Your task to perform on an android device: turn off location Image 0: 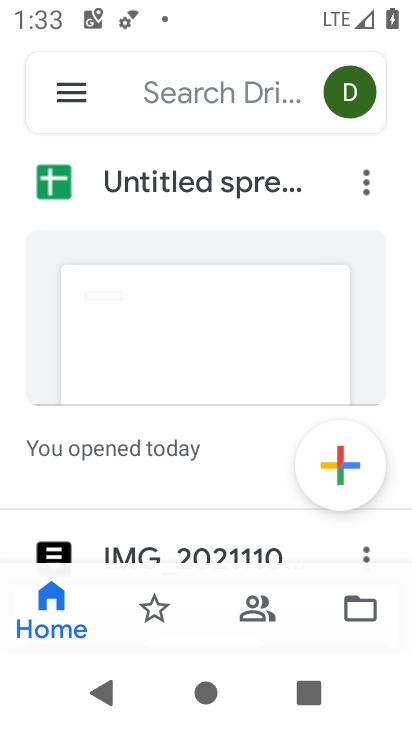
Step 0: press home button
Your task to perform on an android device: turn off location Image 1: 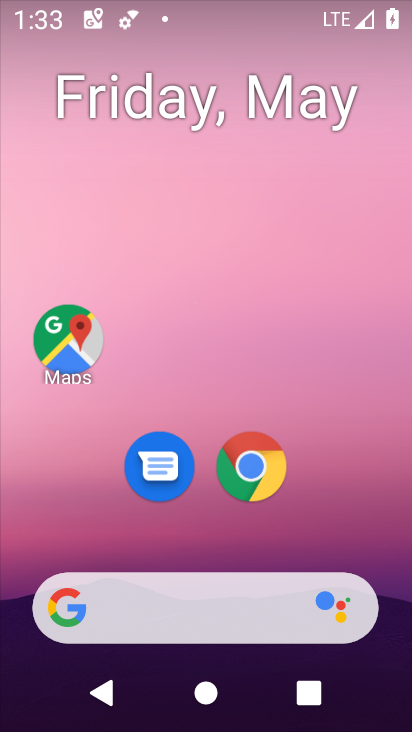
Step 1: drag from (377, 519) to (397, 95)
Your task to perform on an android device: turn off location Image 2: 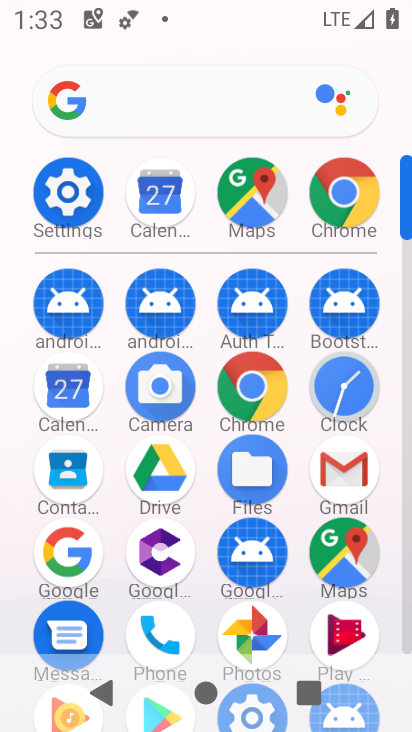
Step 2: click (63, 184)
Your task to perform on an android device: turn off location Image 3: 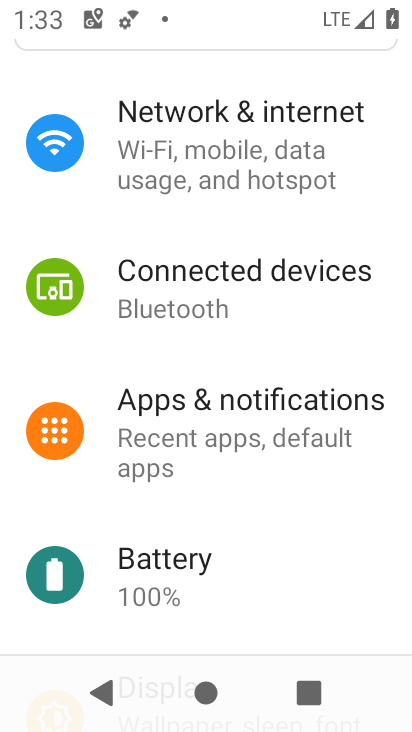
Step 3: drag from (204, 476) to (276, 107)
Your task to perform on an android device: turn off location Image 4: 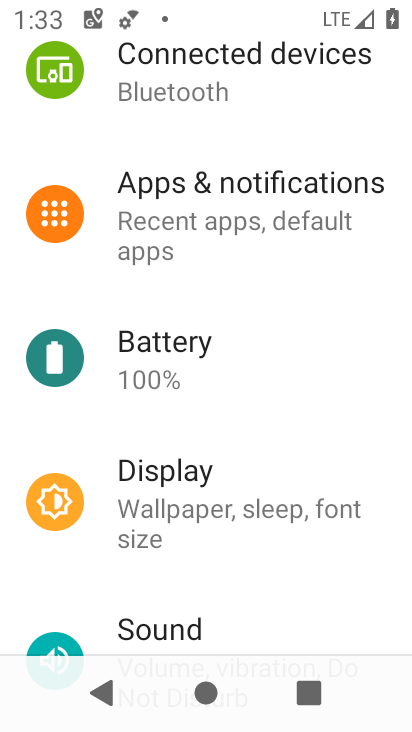
Step 4: drag from (219, 237) to (244, 498)
Your task to perform on an android device: turn off location Image 5: 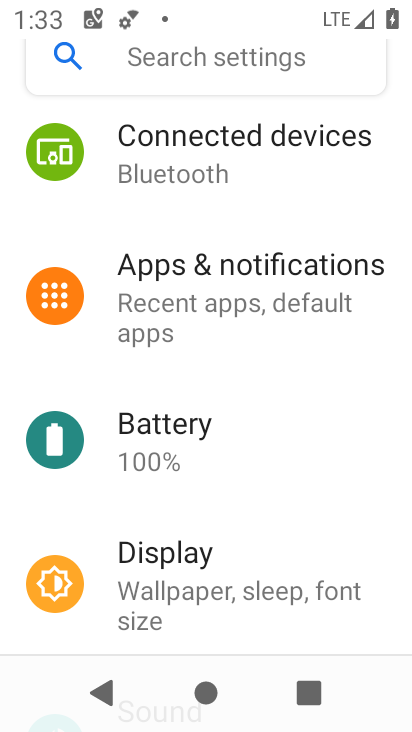
Step 5: drag from (239, 602) to (297, 174)
Your task to perform on an android device: turn off location Image 6: 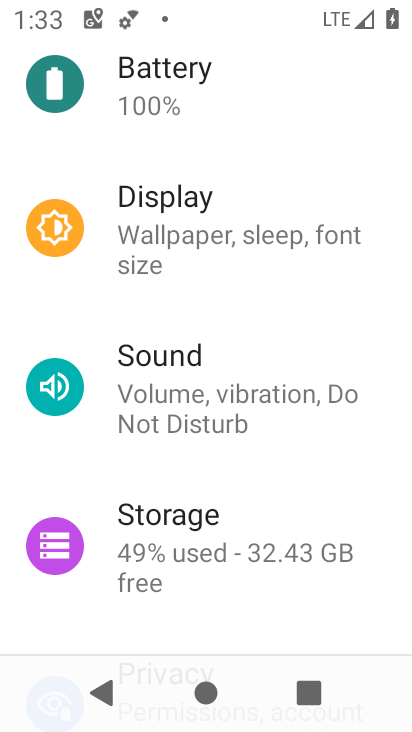
Step 6: drag from (252, 426) to (311, 99)
Your task to perform on an android device: turn off location Image 7: 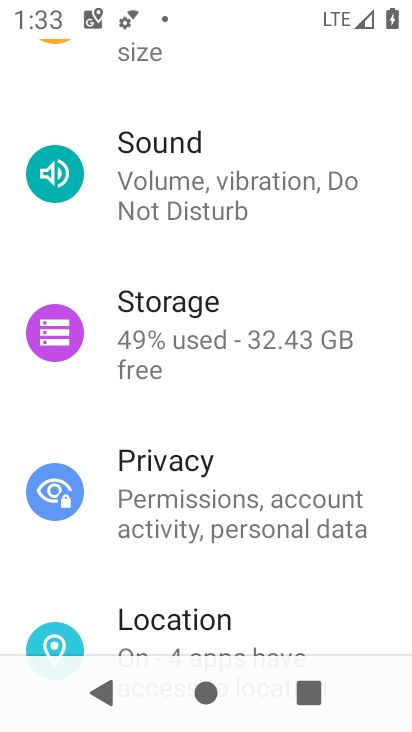
Step 7: drag from (203, 593) to (284, 125)
Your task to perform on an android device: turn off location Image 8: 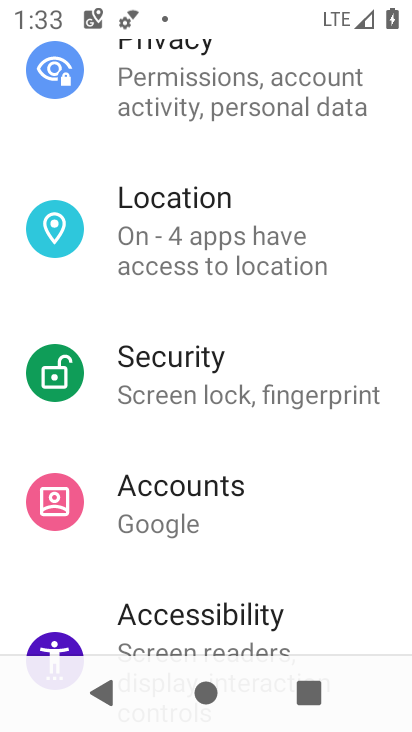
Step 8: click (225, 259)
Your task to perform on an android device: turn off location Image 9: 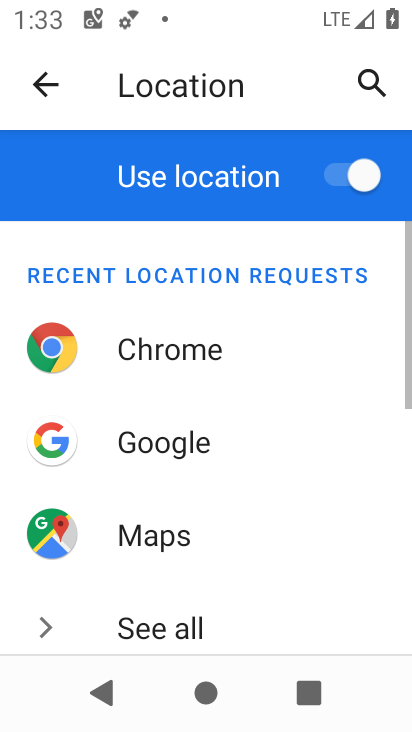
Step 9: click (357, 155)
Your task to perform on an android device: turn off location Image 10: 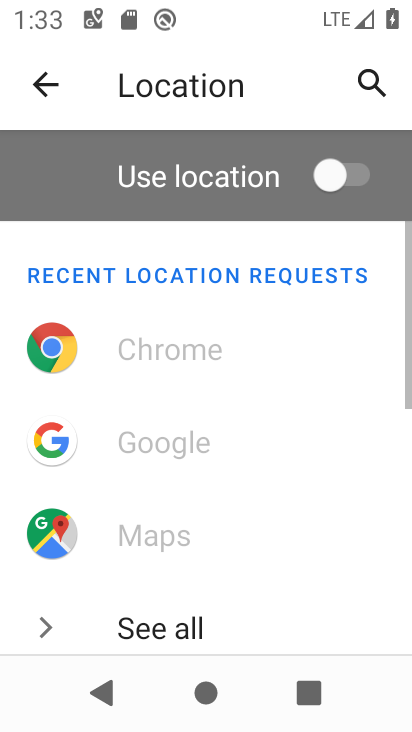
Step 10: task complete